Your task to perform on an android device: Search for a new nail polish Image 0: 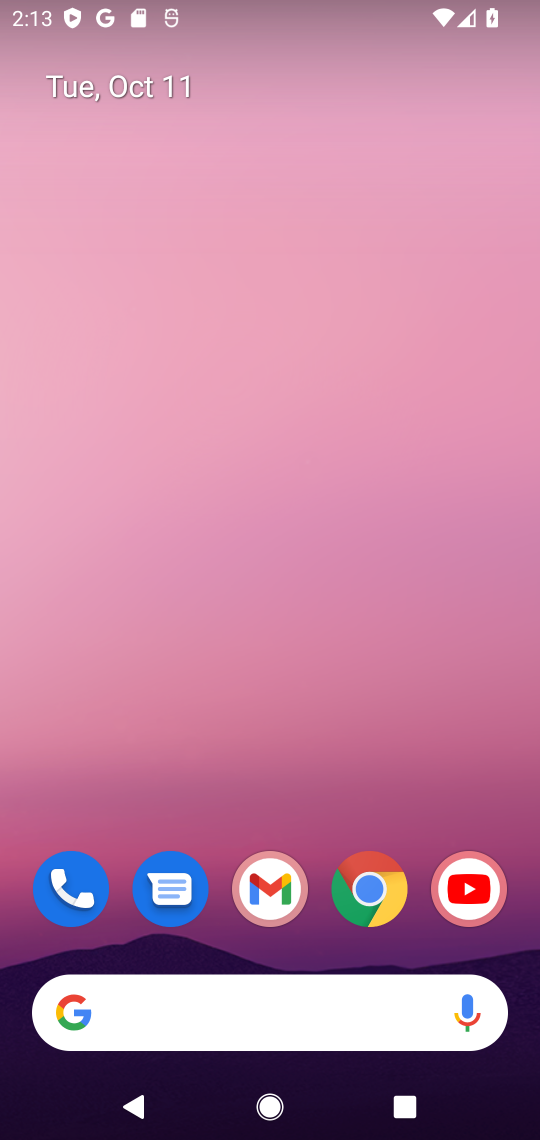
Step 0: drag from (243, 974) to (296, 254)
Your task to perform on an android device: Search for a new nail polish Image 1: 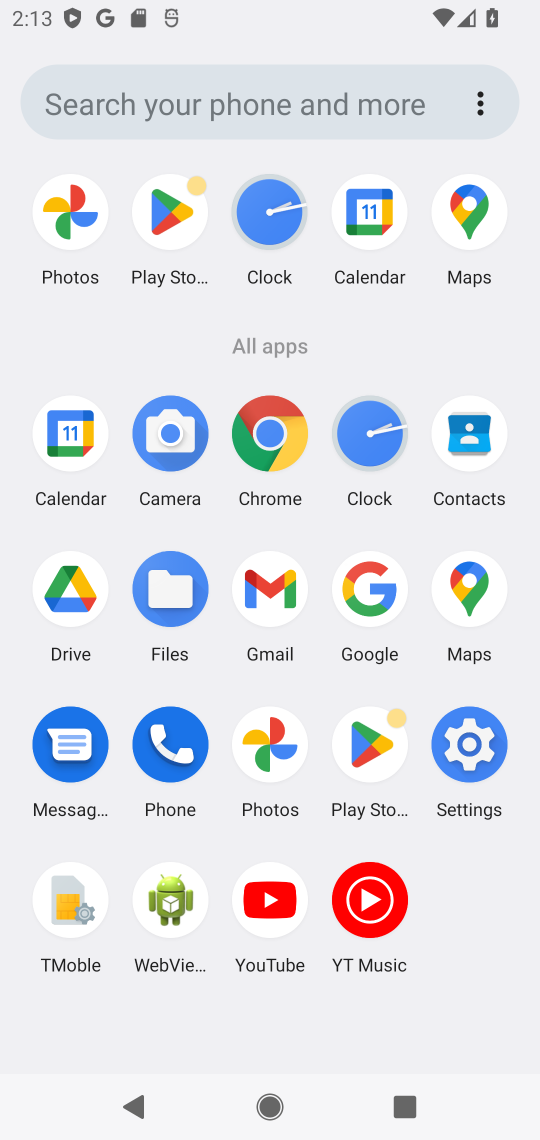
Step 1: click (367, 573)
Your task to perform on an android device: Search for a new nail polish Image 2: 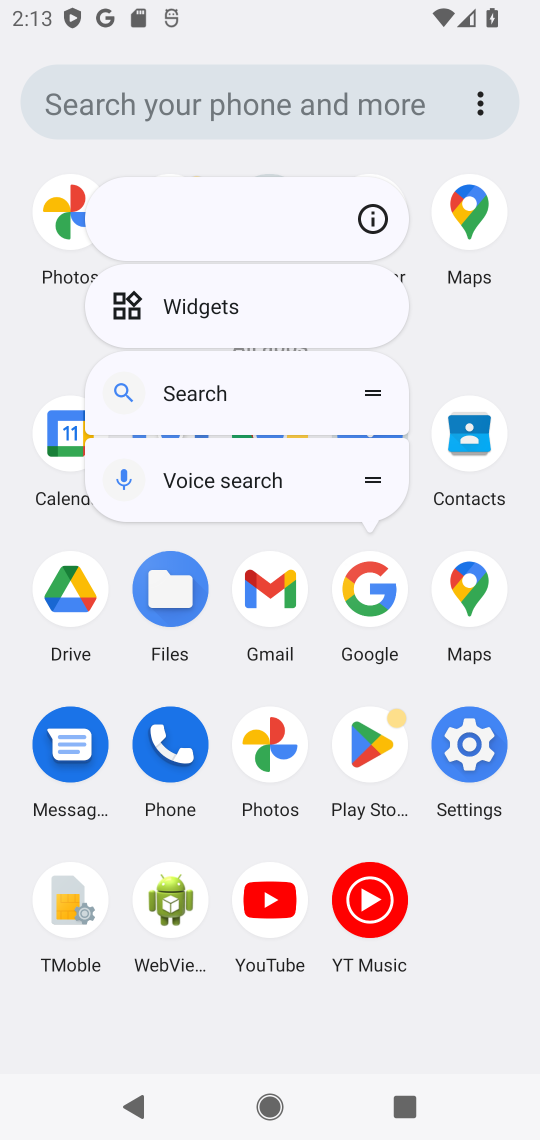
Step 2: click (352, 581)
Your task to perform on an android device: Search for a new nail polish Image 3: 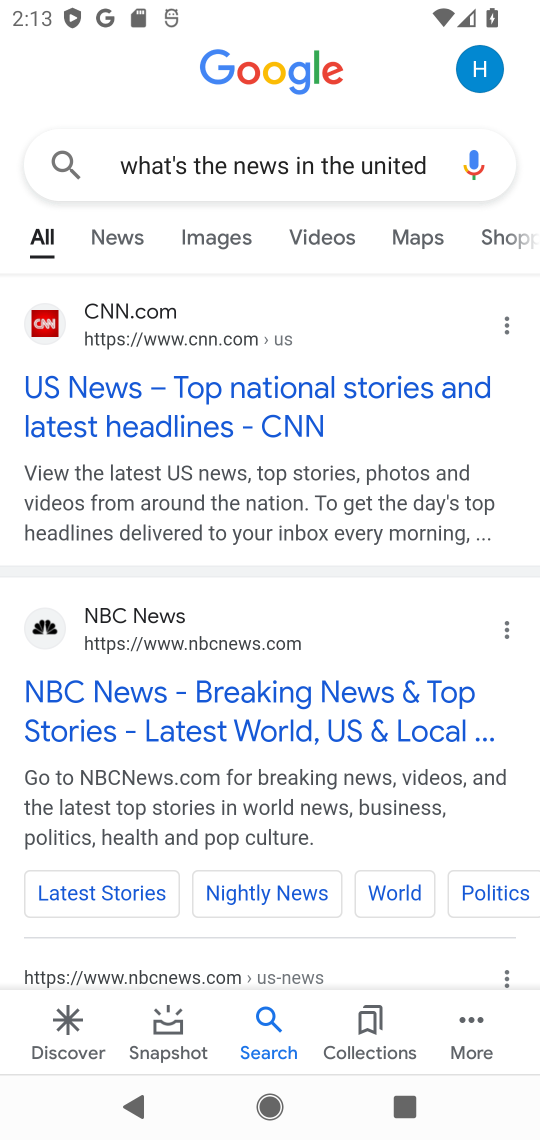
Step 3: click (298, 148)
Your task to perform on an android device: Search for a new nail polish Image 4: 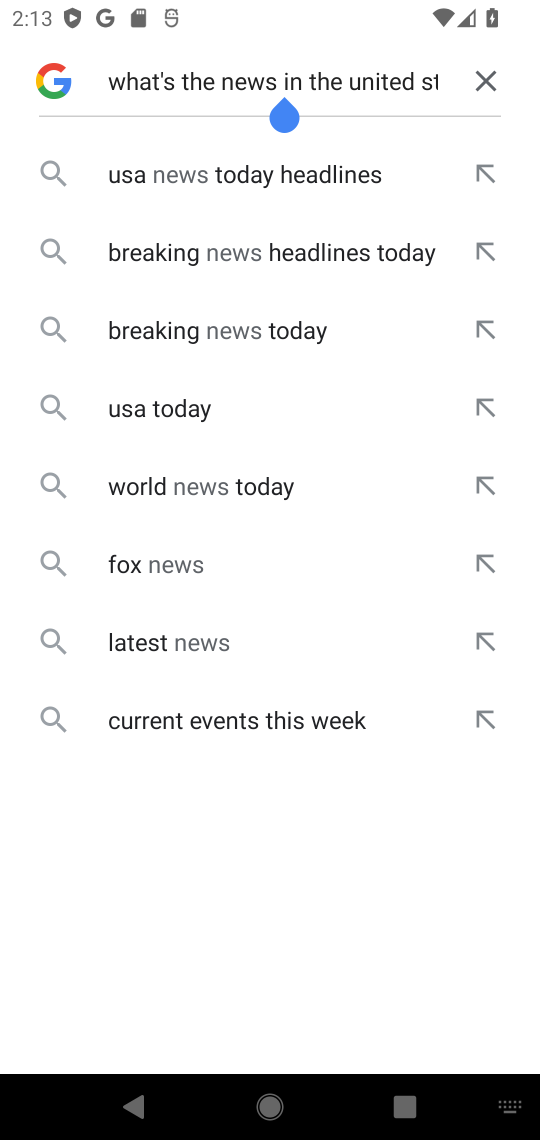
Step 4: click (486, 75)
Your task to perform on an android device: Search for a new nail polish Image 5: 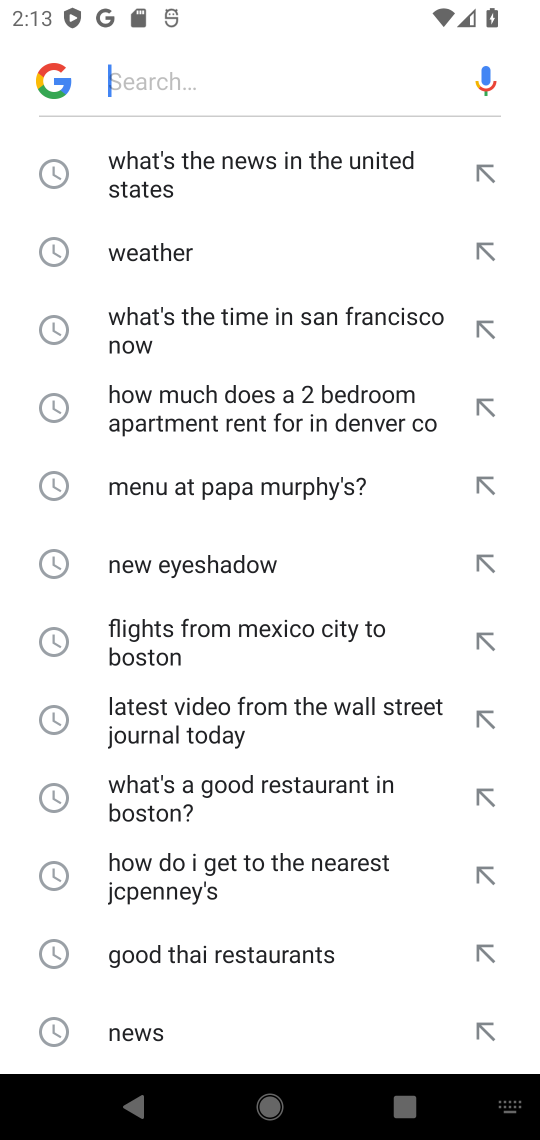
Step 5: click (219, 1127)
Your task to perform on an android device: Search for a new nail polish Image 6: 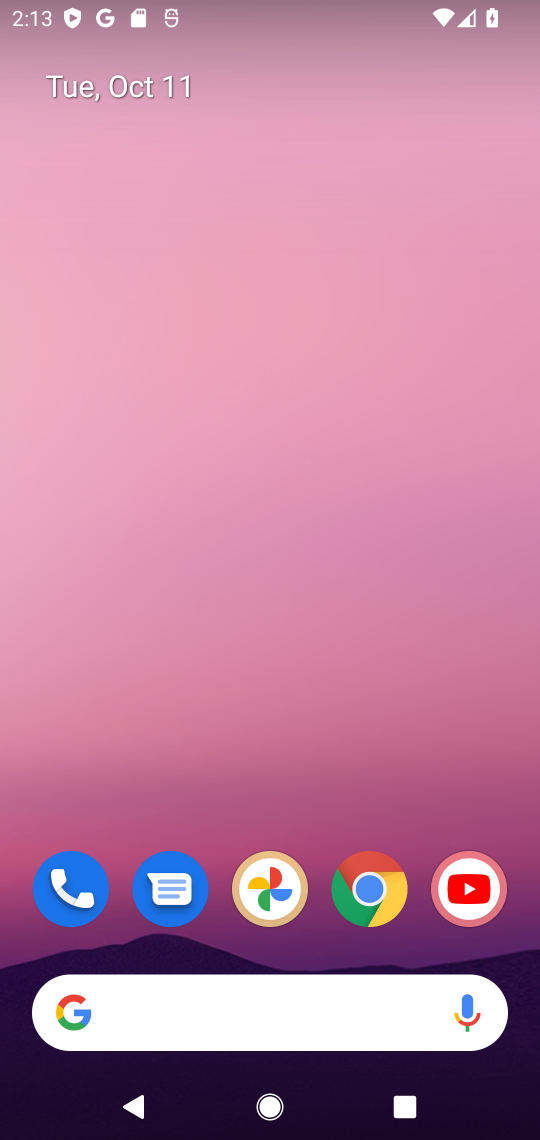
Step 6: drag from (341, 890) to (379, 286)
Your task to perform on an android device: Search for a new nail polish Image 7: 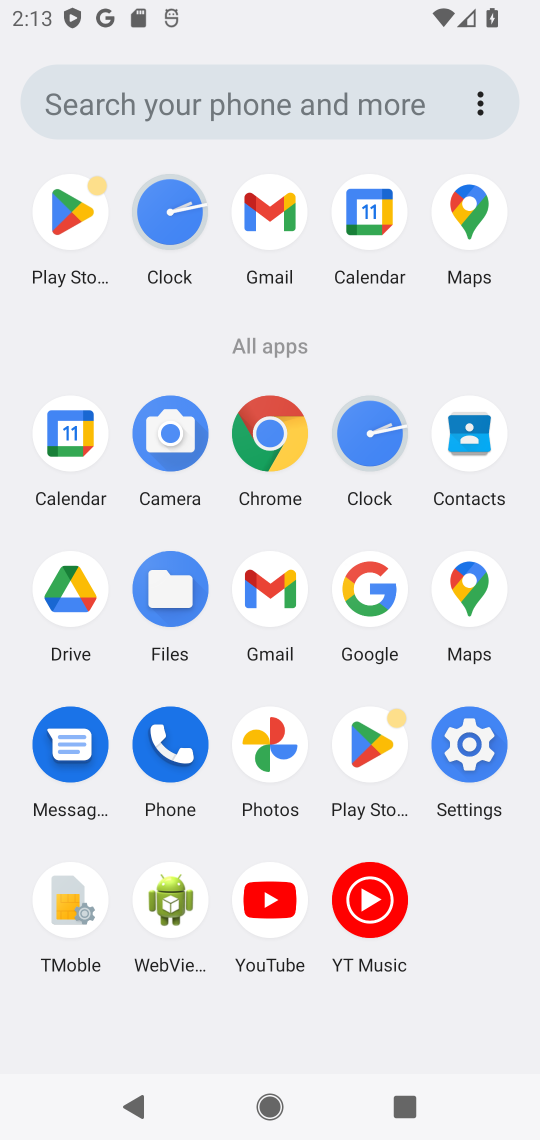
Step 7: click (374, 585)
Your task to perform on an android device: Search for a new nail polish Image 8: 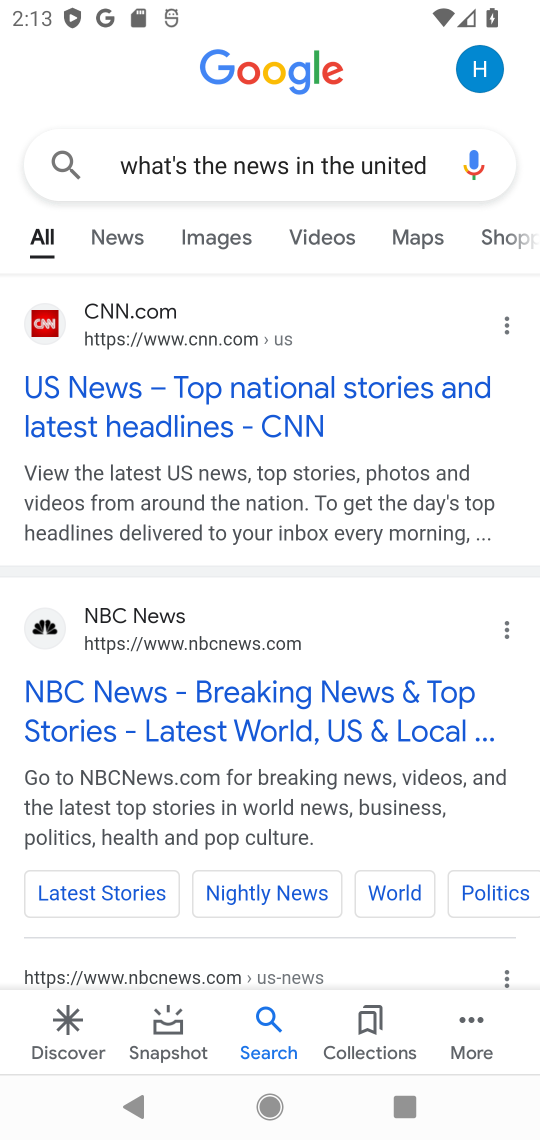
Step 8: click (229, 162)
Your task to perform on an android device: Search for a new nail polish Image 9: 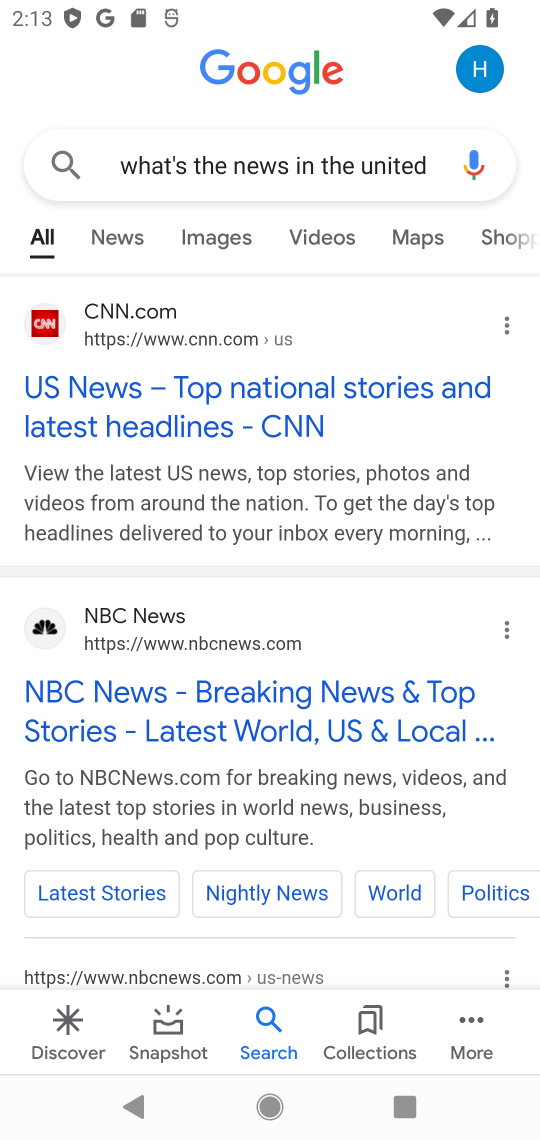
Step 9: click (232, 169)
Your task to perform on an android device: Search for a new nail polish Image 10: 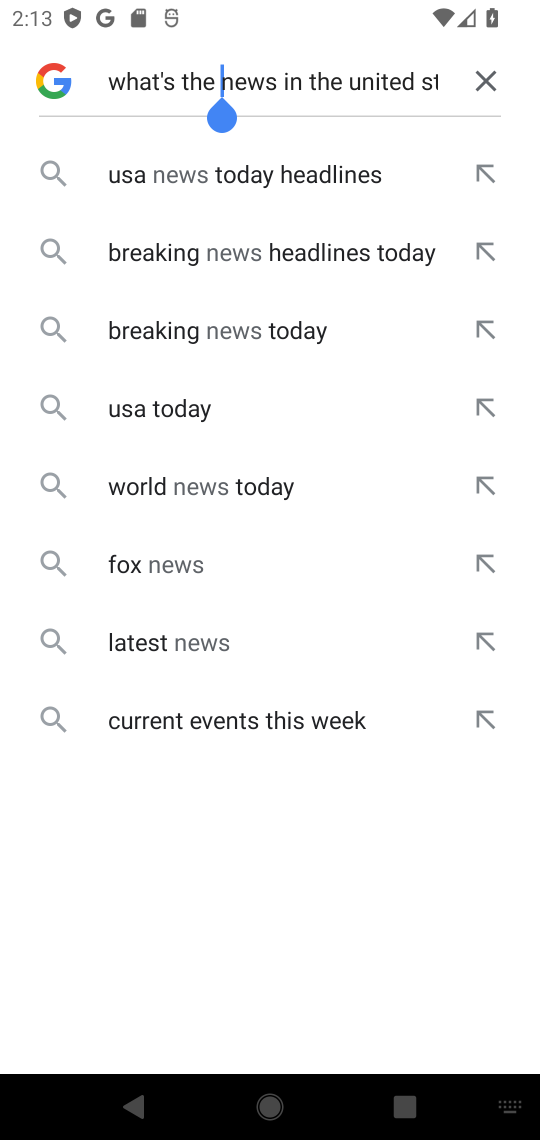
Step 10: click (484, 55)
Your task to perform on an android device: Search for a new nail polish Image 11: 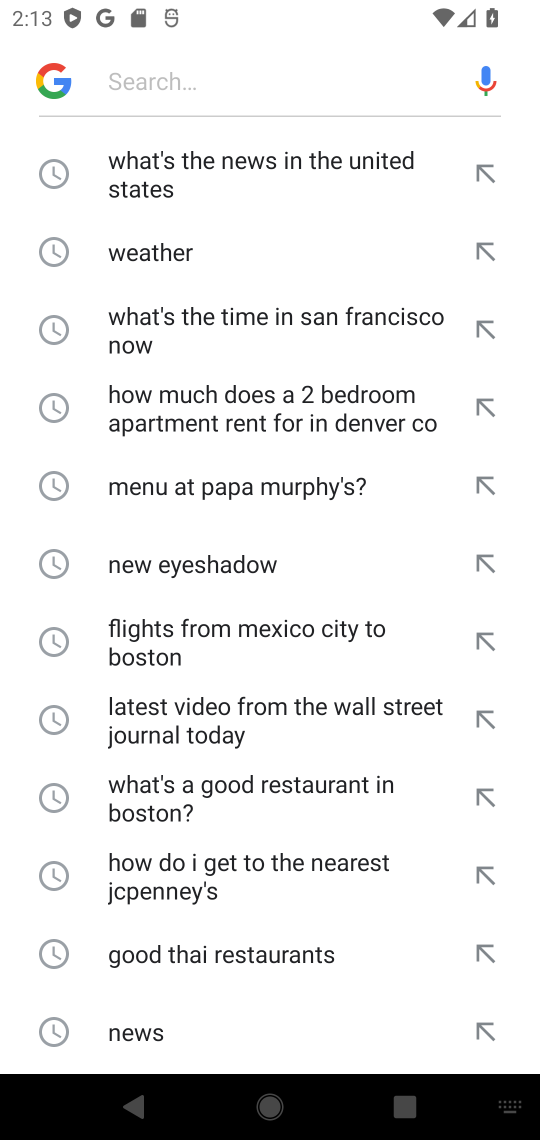
Step 11: click (178, 76)
Your task to perform on an android device: Search for a new nail polish Image 12: 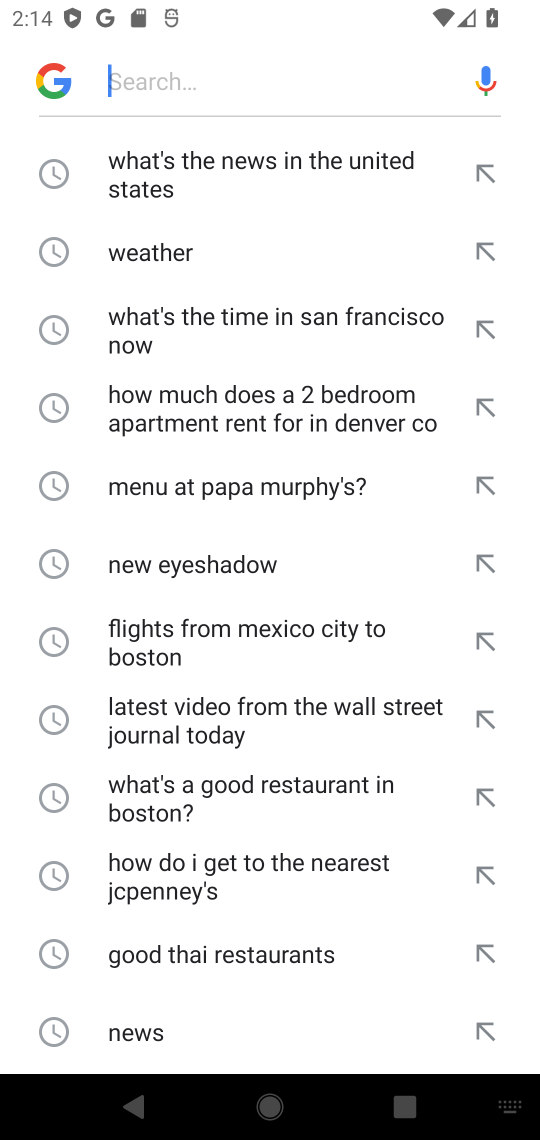
Step 12: click (264, 47)
Your task to perform on an android device: Search for a new nail polish Image 13: 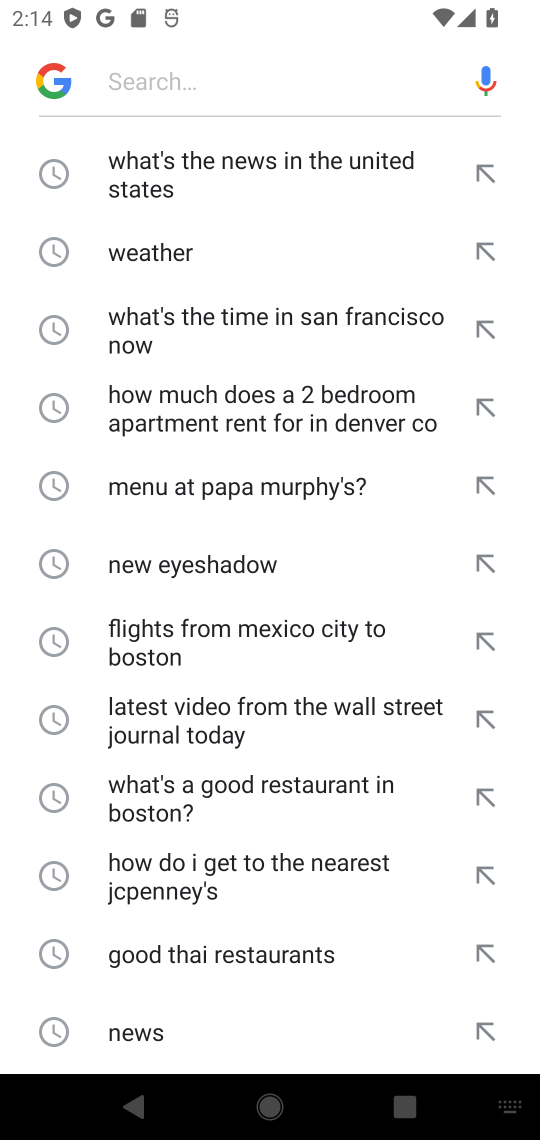
Step 13: type "Search for a new nail polish "
Your task to perform on an android device: Search for a new nail polish Image 14: 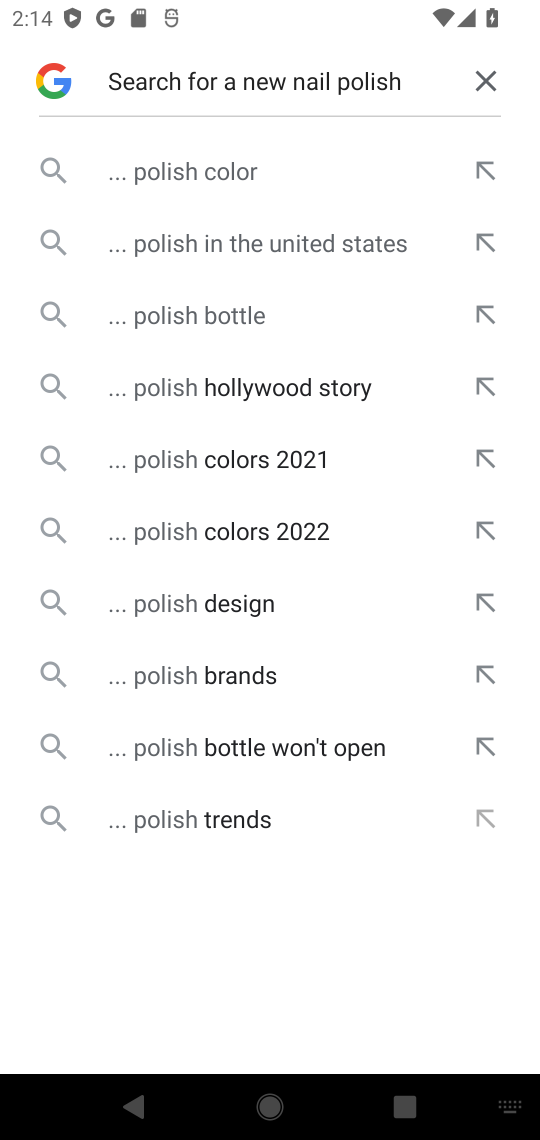
Step 14: click (256, 171)
Your task to perform on an android device: Search for a new nail polish Image 15: 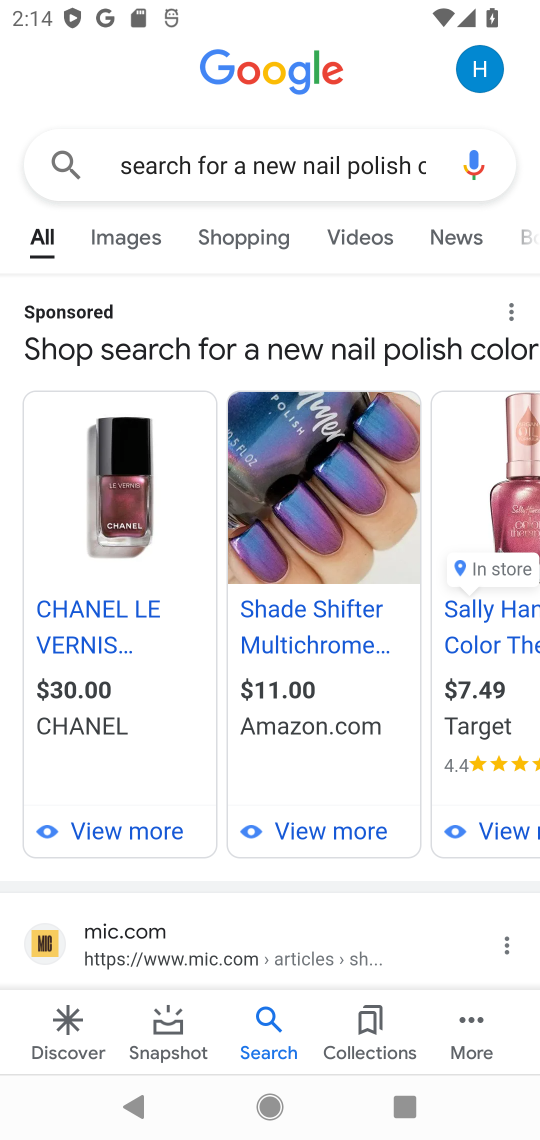
Step 15: task complete